Your task to perform on an android device: Open Yahoo.com Image 0: 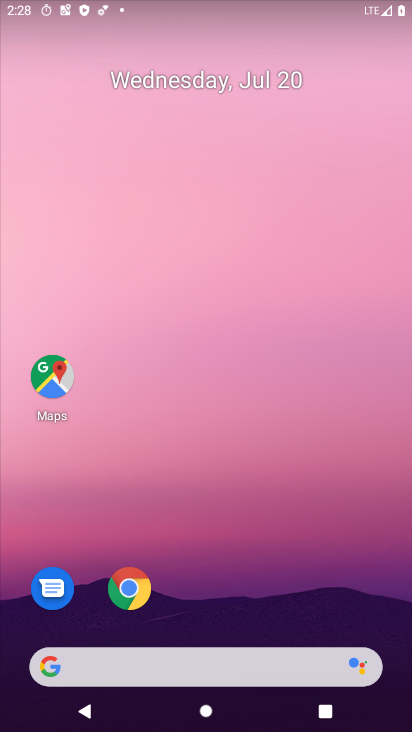
Step 0: drag from (267, 390) to (205, 9)
Your task to perform on an android device: Open Yahoo.com Image 1: 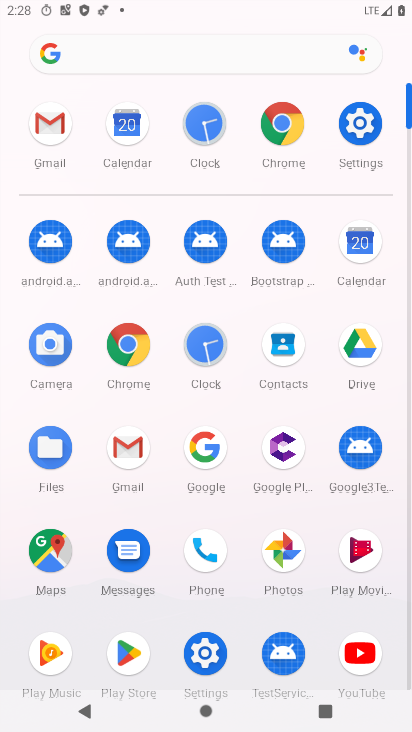
Step 1: click (290, 125)
Your task to perform on an android device: Open Yahoo.com Image 2: 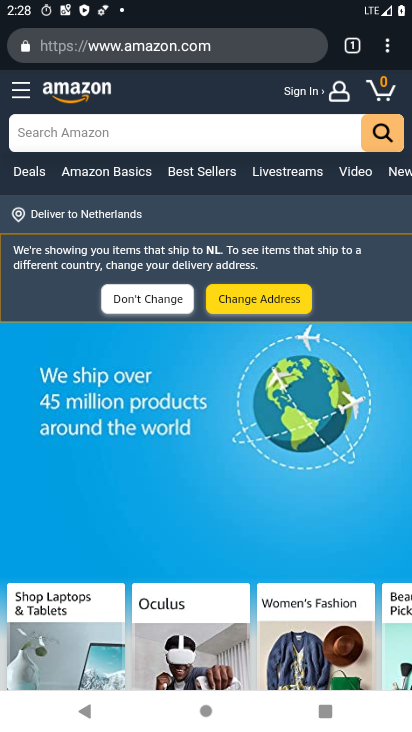
Step 2: press back button
Your task to perform on an android device: Open Yahoo.com Image 3: 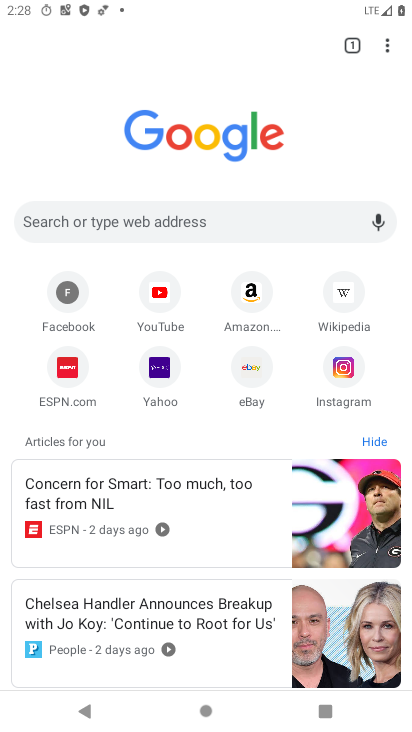
Step 3: click (159, 374)
Your task to perform on an android device: Open Yahoo.com Image 4: 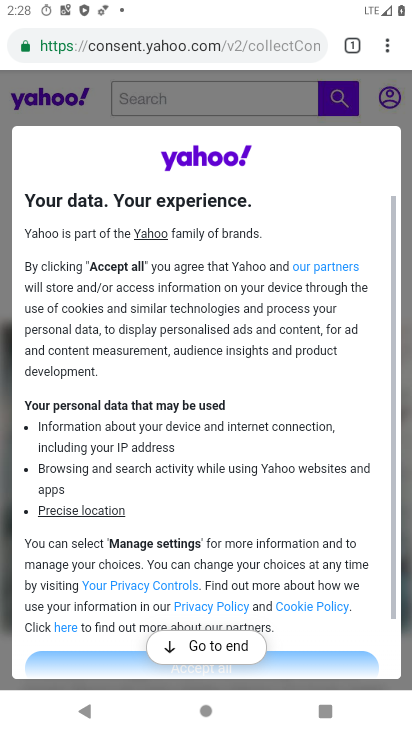
Step 4: task complete